Your task to perform on an android device: Show me productivity apps on the Play Store Image 0: 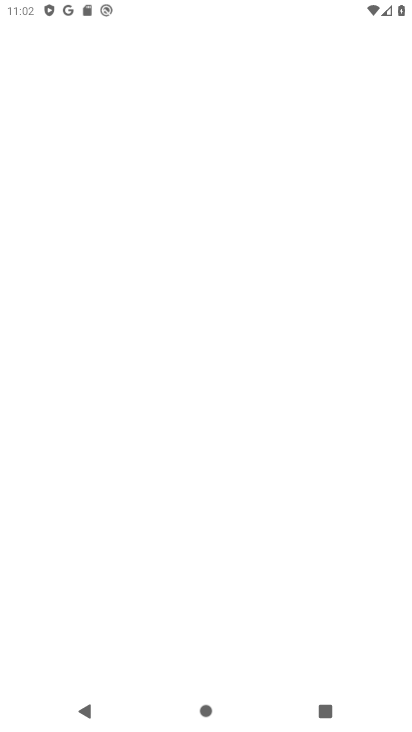
Step 0: press home button
Your task to perform on an android device: Show me productivity apps on the Play Store Image 1: 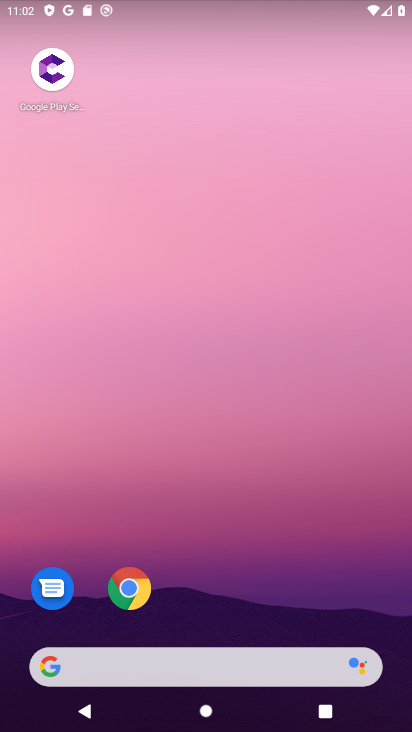
Step 1: drag from (244, 667) to (214, 211)
Your task to perform on an android device: Show me productivity apps on the Play Store Image 2: 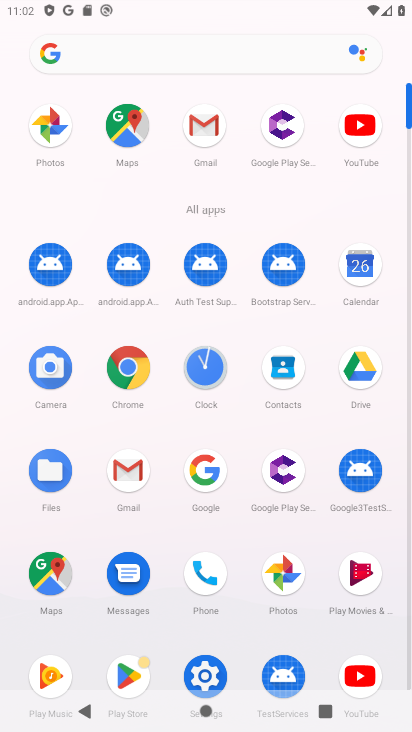
Step 2: click (129, 681)
Your task to perform on an android device: Show me productivity apps on the Play Store Image 3: 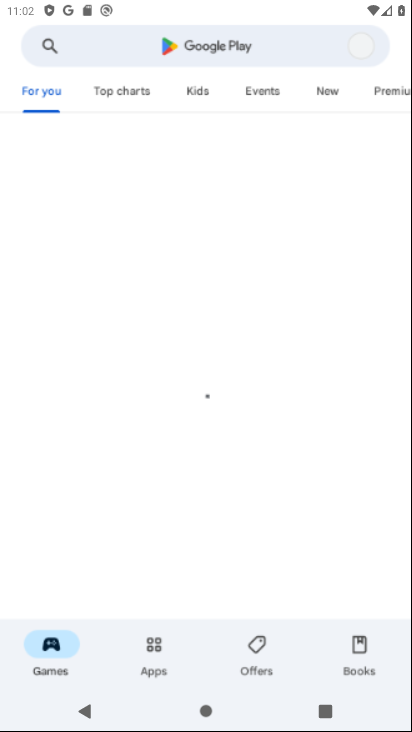
Step 3: click (171, 44)
Your task to perform on an android device: Show me productivity apps on the Play Store Image 4: 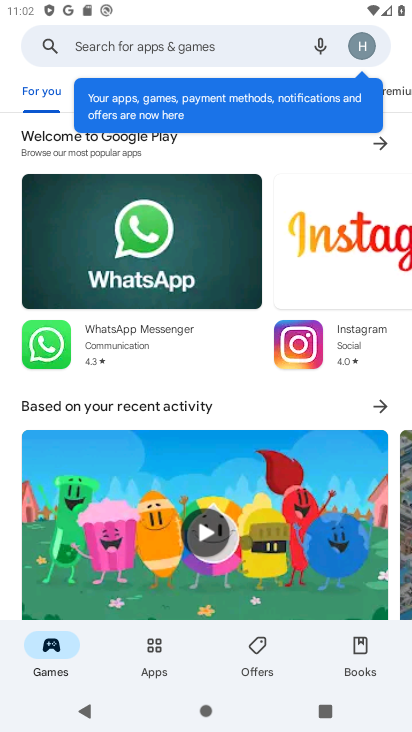
Step 4: click (169, 50)
Your task to perform on an android device: Show me productivity apps on the Play Store Image 5: 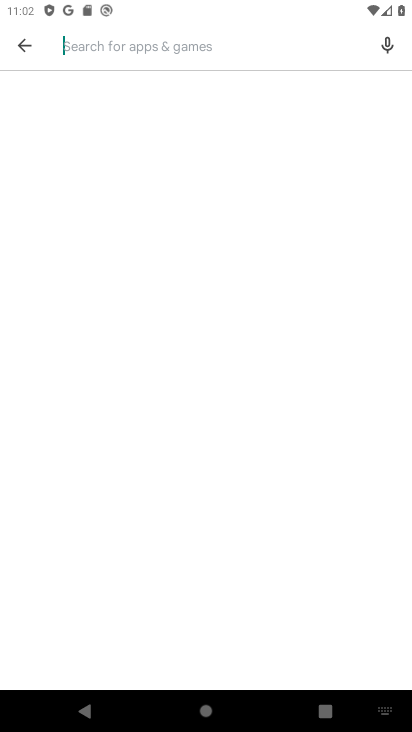
Step 5: click (377, 716)
Your task to perform on an android device: Show me productivity apps on the Play Store Image 6: 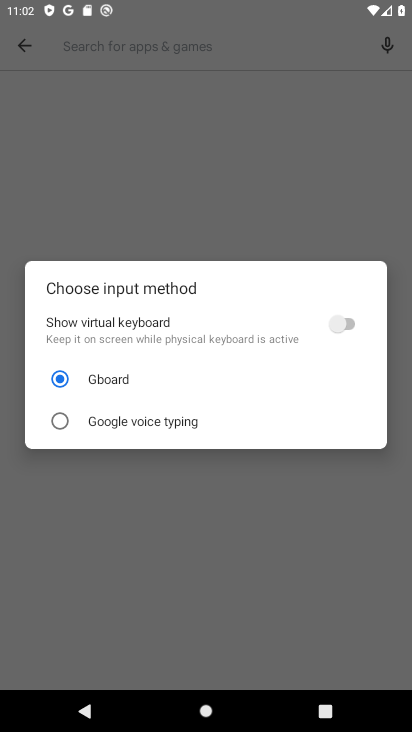
Step 6: click (345, 324)
Your task to perform on an android device: Show me productivity apps on the Play Store Image 7: 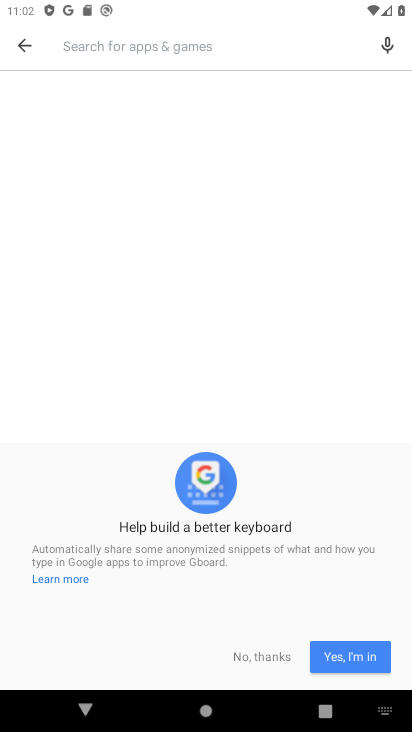
Step 7: click (266, 658)
Your task to perform on an android device: Show me productivity apps on the Play Store Image 8: 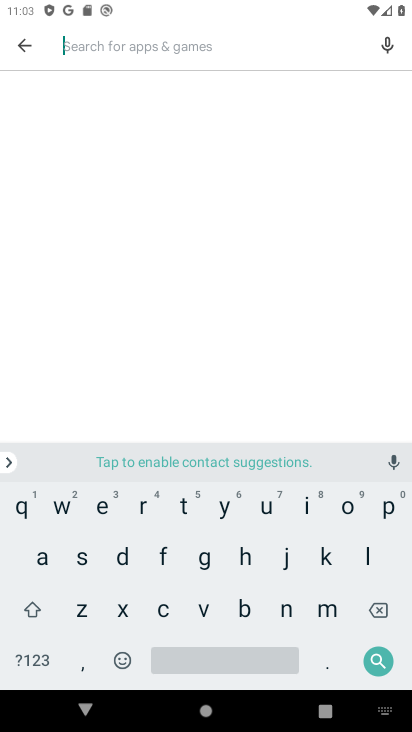
Step 8: click (393, 506)
Your task to perform on an android device: Show me productivity apps on the Play Store Image 9: 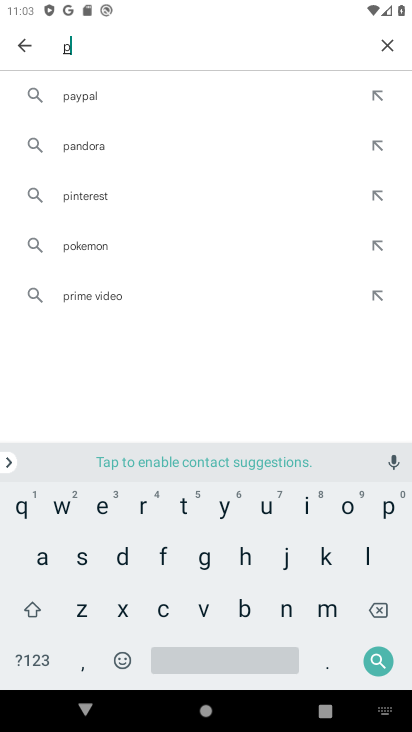
Step 9: click (138, 506)
Your task to perform on an android device: Show me productivity apps on the Play Store Image 10: 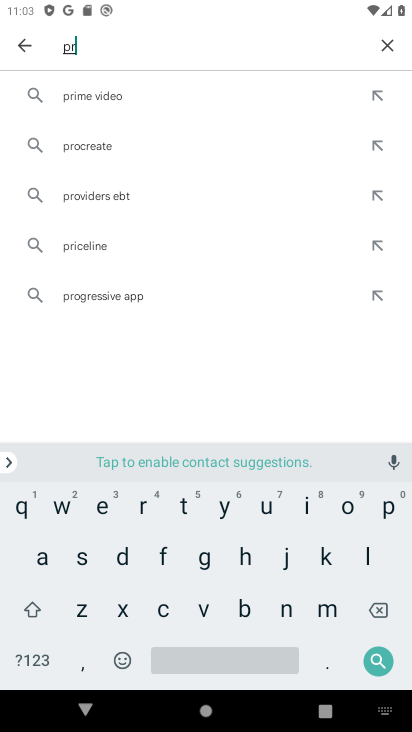
Step 10: click (351, 508)
Your task to perform on an android device: Show me productivity apps on the Play Store Image 11: 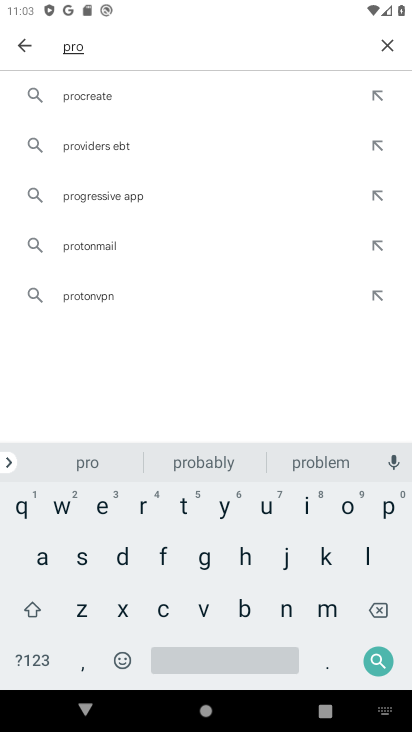
Step 11: click (116, 555)
Your task to perform on an android device: Show me productivity apps on the Play Store Image 12: 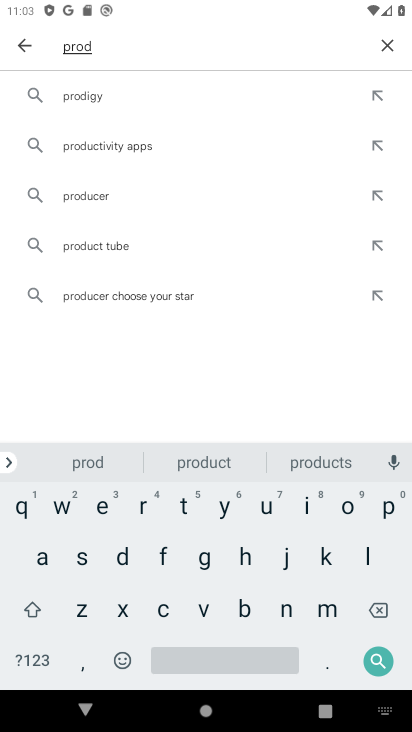
Step 12: click (259, 508)
Your task to perform on an android device: Show me productivity apps on the Play Store Image 13: 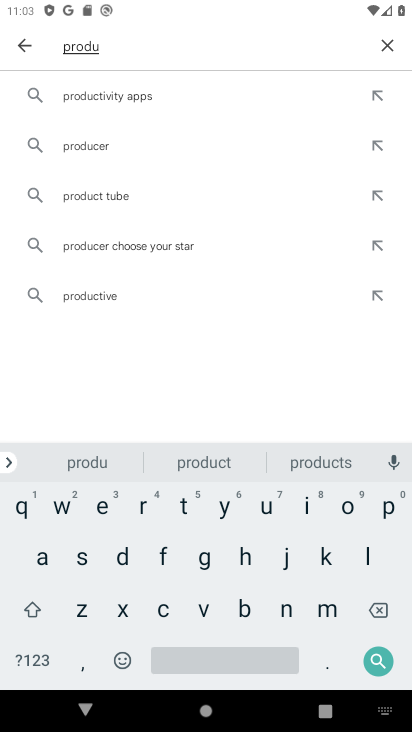
Step 13: click (93, 90)
Your task to perform on an android device: Show me productivity apps on the Play Store Image 14: 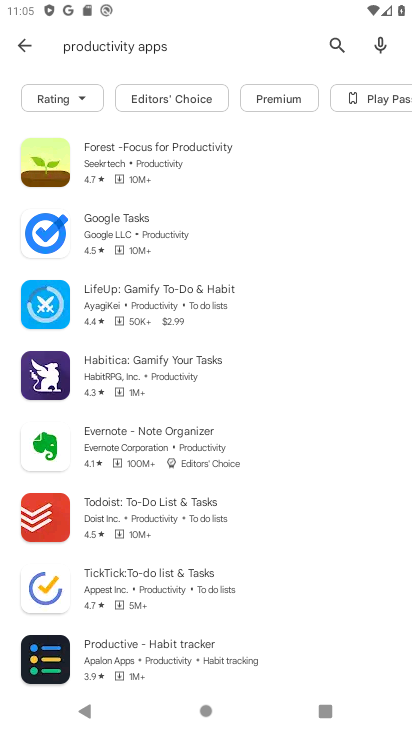
Step 14: task complete